Your task to perform on an android device: star an email in the gmail app Image 0: 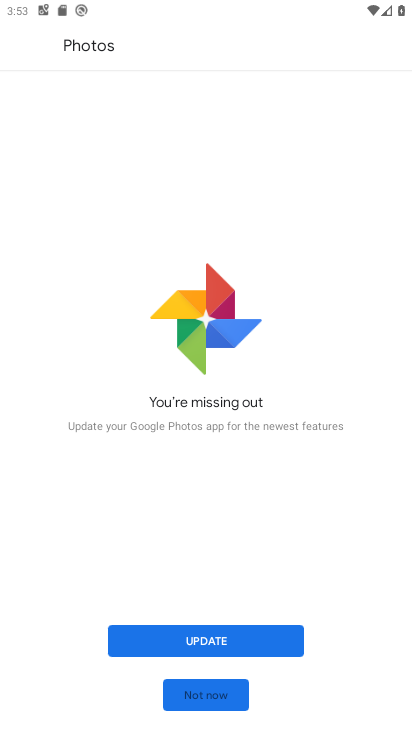
Step 0: press home button
Your task to perform on an android device: star an email in the gmail app Image 1: 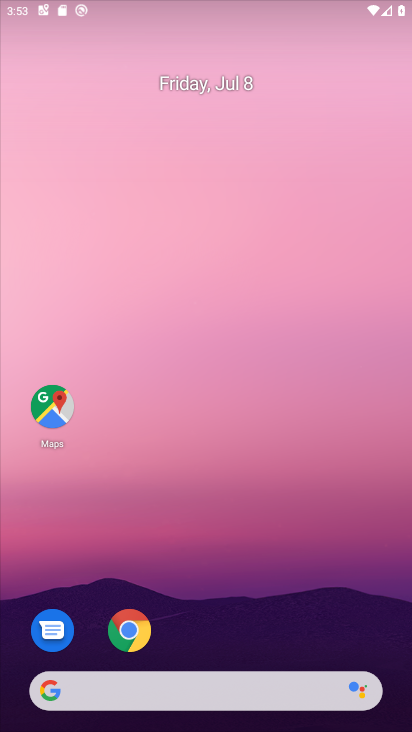
Step 1: drag from (338, 604) to (328, 153)
Your task to perform on an android device: star an email in the gmail app Image 2: 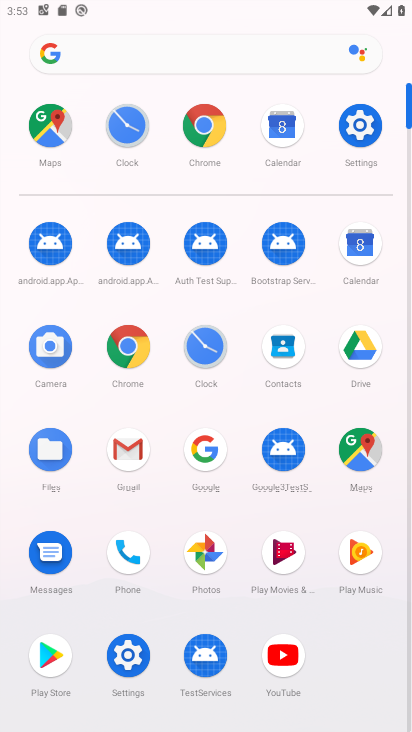
Step 2: click (134, 446)
Your task to perform on an android device: star an email in the gmail app Image 3: 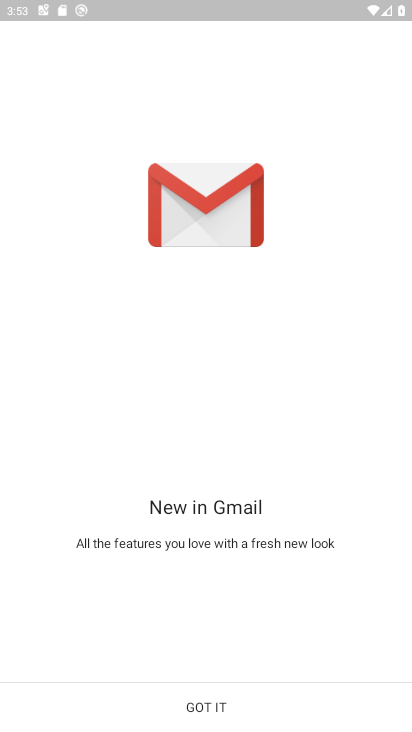
Step 3: click (234, 701)
Your task to perform on an android device: star an email in the gmail app Image 4: 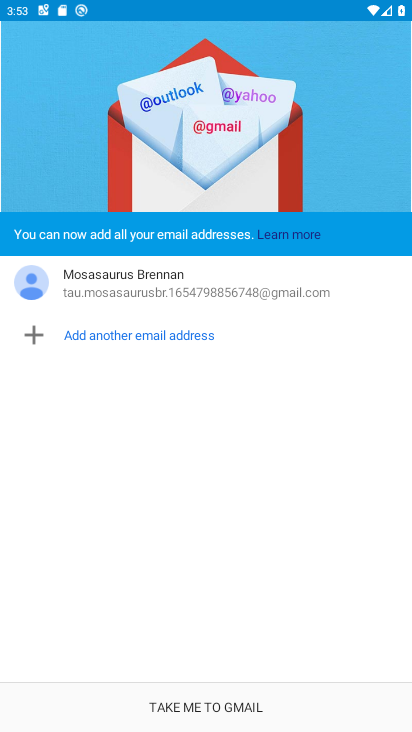
Step 4: click (236, 702)
Your task to perform on an android device: star an email in the gmail app Image 5: 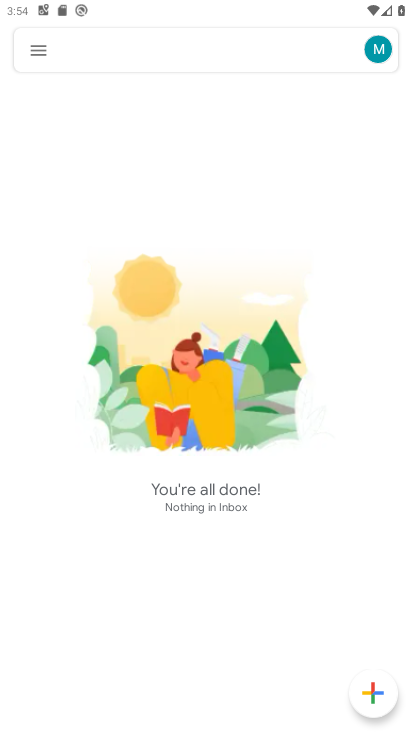
Step 5: click (24, 44)
Your task to perform on an android device: star an email in the gmail app Image 6: 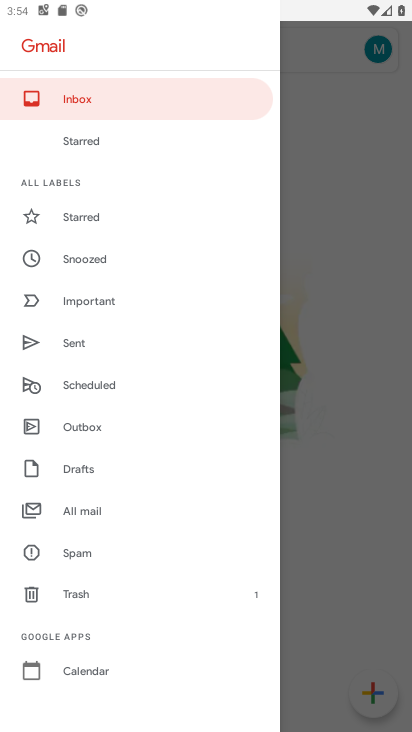
Step 6: click (93, 514)
Your task to perform on an android device: star an email in the gmail app Image 7: 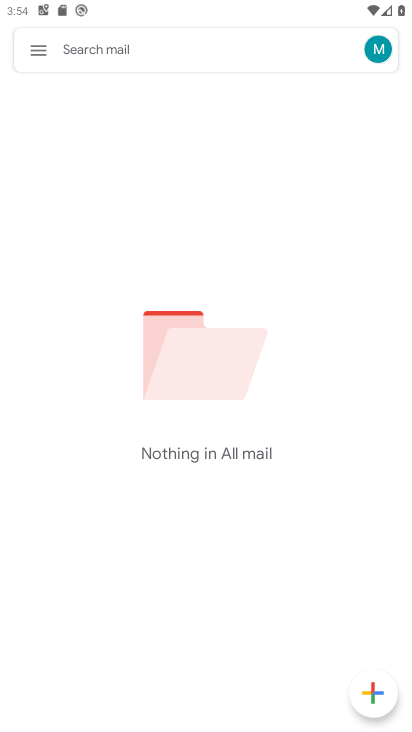
Step 7: task complete